Your task to perform on an android device: show emergency info Image 0: 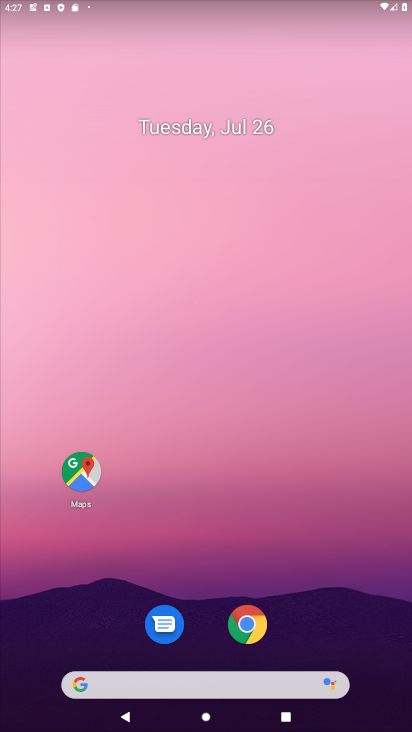
Step 0: drag from (224, 660) to (354, 4)
Your task to perform on an android device: show emergency info Image 1: 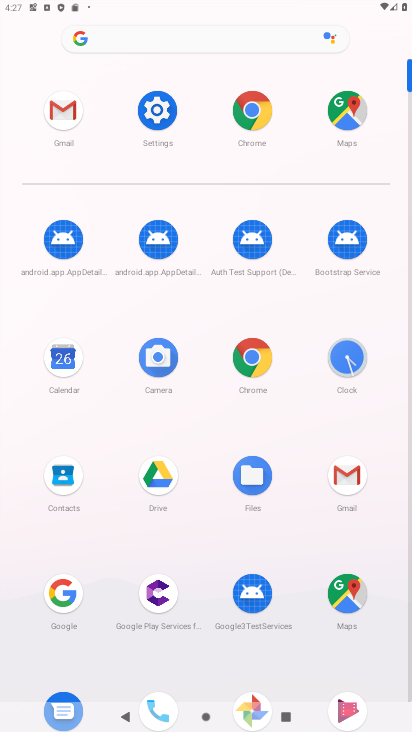
Step 1: click (153, 110)
Your task to perform on an android device: show emergency info Image 2: 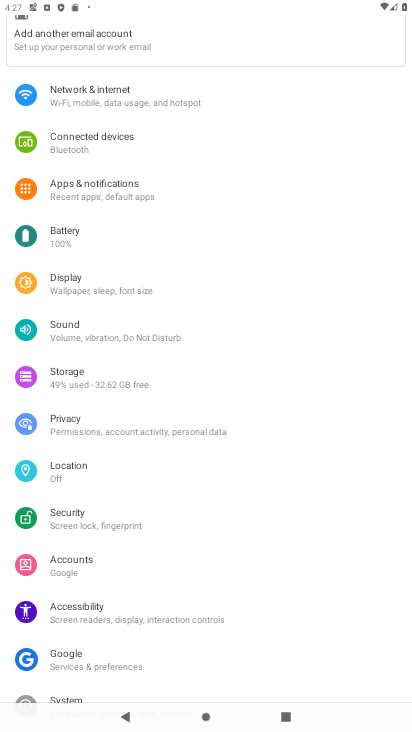
Step 2: drag from (235, 645) to (245, 110)
Your task to perform on an android device: show emergency info Image 3: 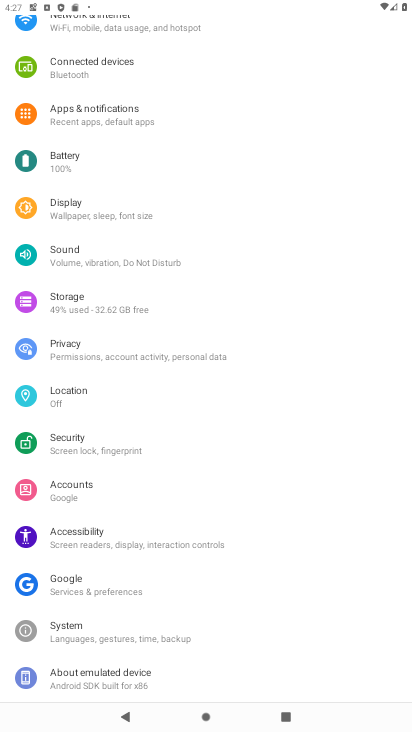
Step 3: click (186, 686)
Your task to perform on an android device: show emergency info Image 4: 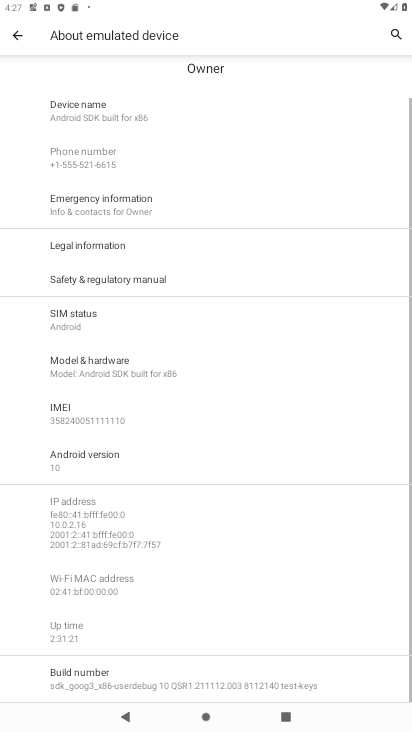
Step 4: click (136, 198)
Your task to perform on an android device: show emergency info Image 5: 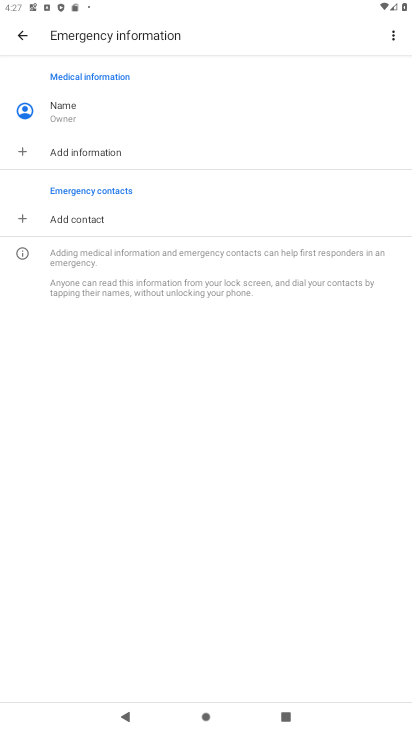
Step 5: task complete